Your task to perform on an android device: Go to internet settings Image 0: 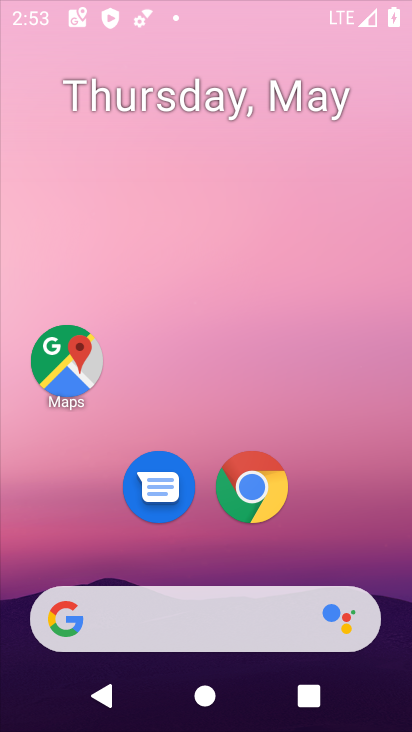
Step 0: click (196, 174)
Your task to perform on an android device: Go to internet settings Image 1: 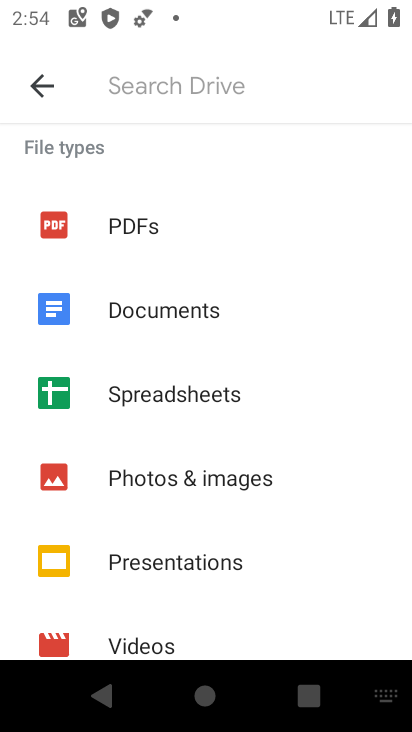
Step 1: press home button
Your task to perform on an android device: Go to internet settings Image 2: 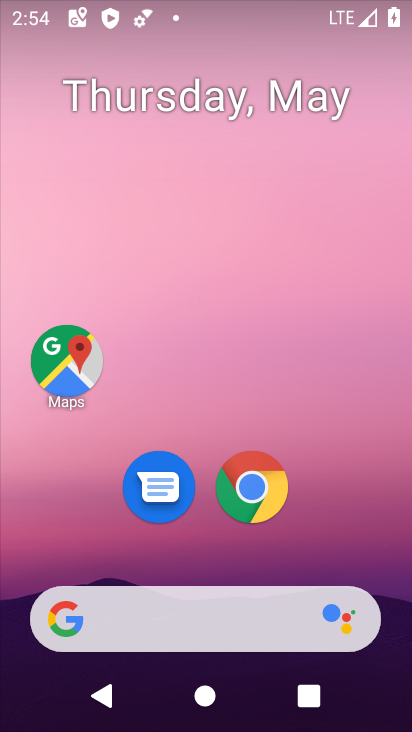
Step 2: drag from (202, 650) to (283, 87)
Your task to perform on an android device: Go to internet settings Image 3: 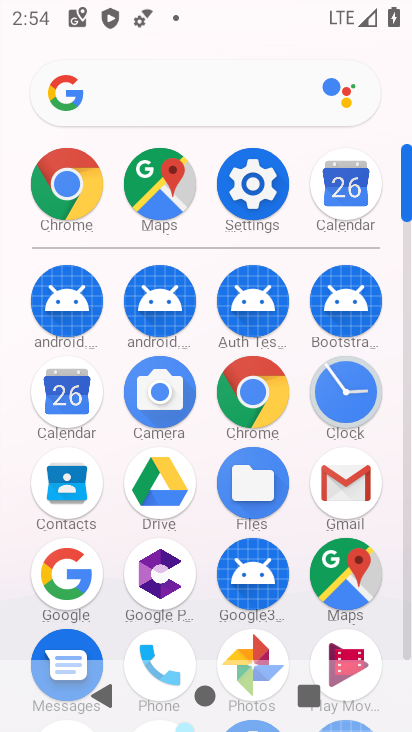
Step 3: click (247, 198)
Your task to perform on an android device: Go to internet settings Image 4: 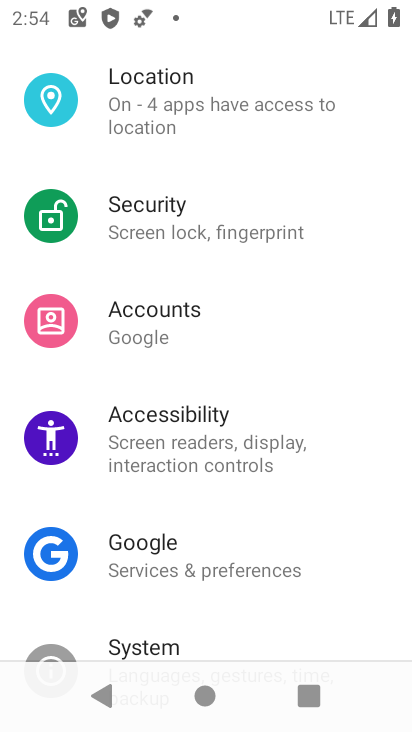
Step 4: drag from (202, 183) to (204, 470)
Your task to perform on an android device: Go to internet settings Image 5: 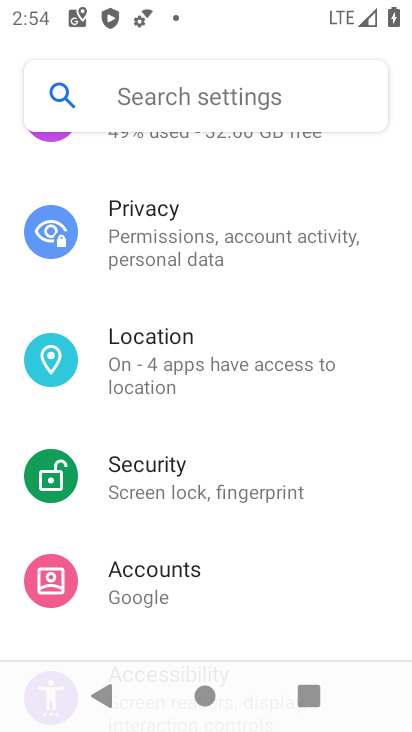
Step 5: drag from (203, 252) to (205, 514)
Your task to perform on an android device: Go to internet settings Image 6: 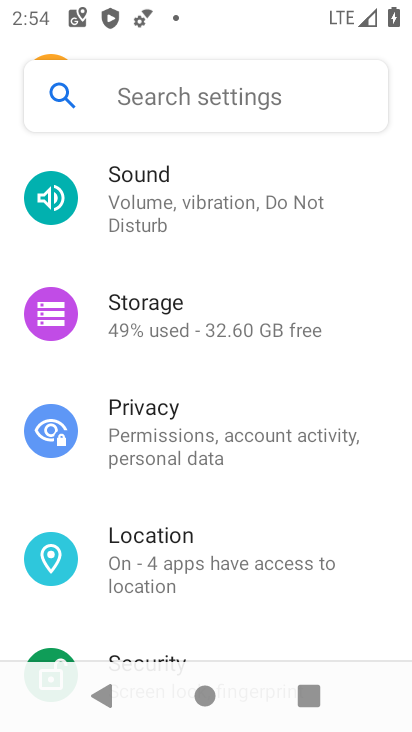
Step 6: drag from (207, 291) to (213, 570)
Your task to perform on an android device: Go to internet settings Image 7: 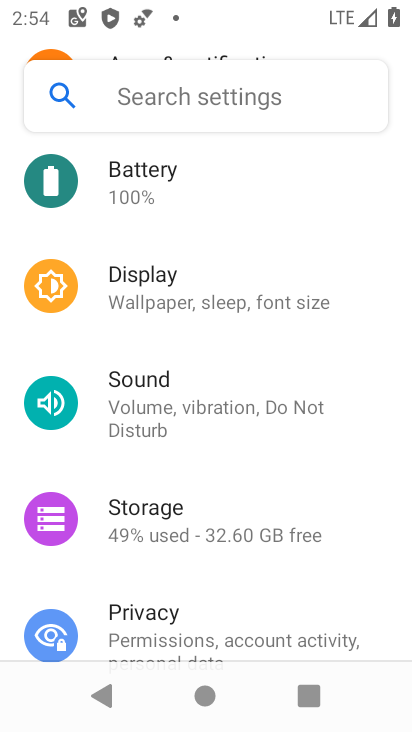
Step 7: drag from (220, 329) to (209, 722)
Your task to perform on an android device: Go to internet settings Image 8: 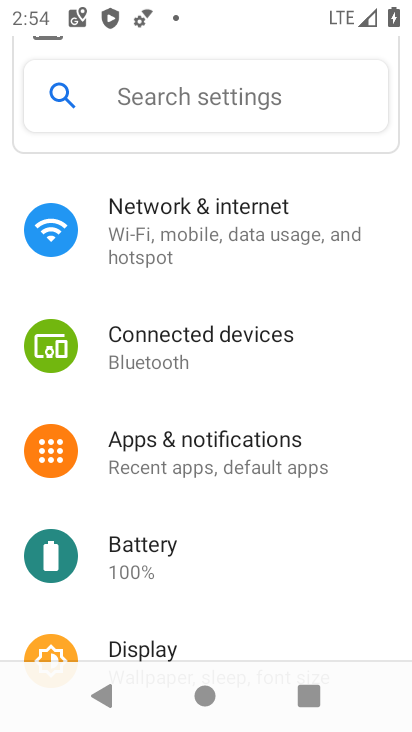
Step 8: click (256, 237)
Your task to perform on an android device: Go to internet settings Image 9: 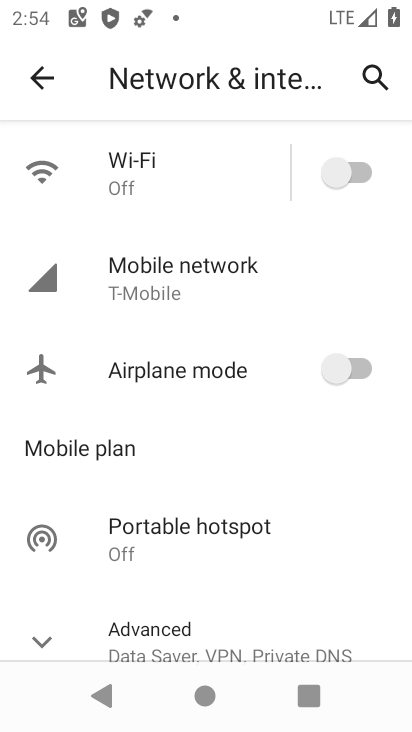
Step 9: click (219, 188)
Your task to perform on an android device: Go to internet settings Image 10: 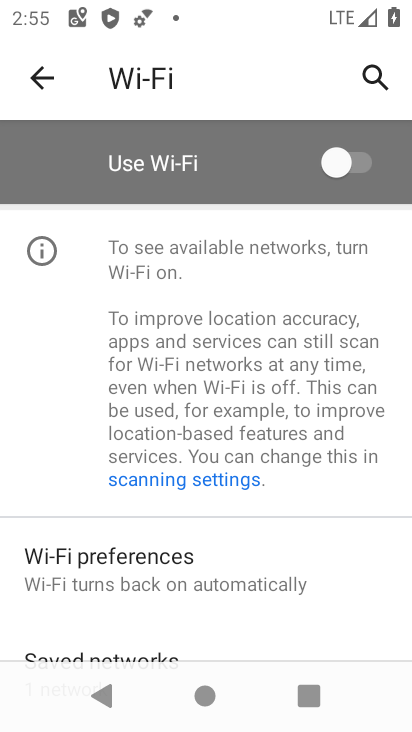
Step 10: task complete